Your task to perform on an android device: change timer sound Image 0: 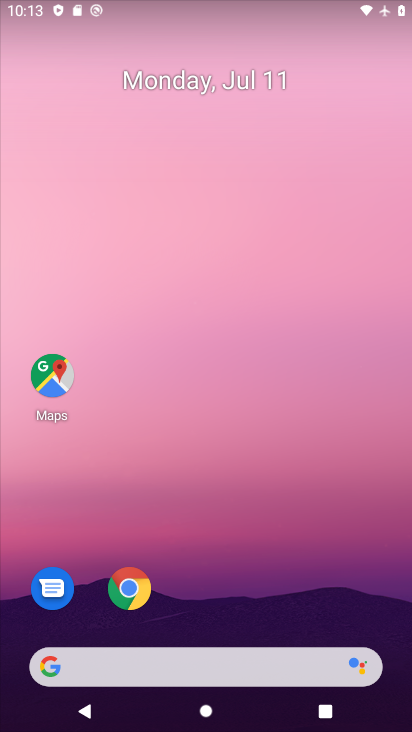
Step 0: drag from (152, 655) to (317, 172)
Your task to perform on an android device: change timer sound Image 1: 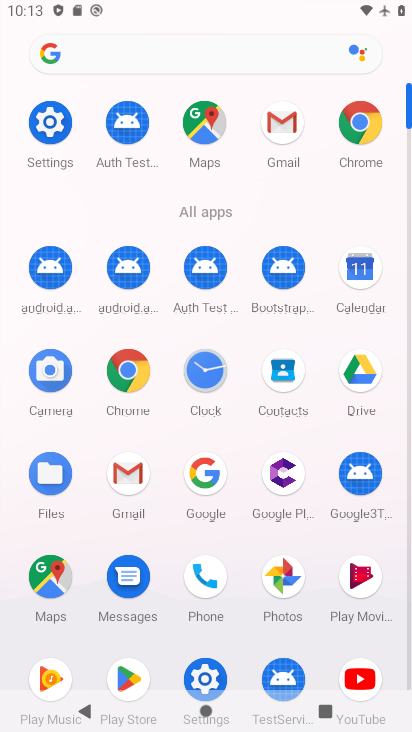
Step 1: click (204, 375)
Your task to perform on an android device: change timer sound Image 2: 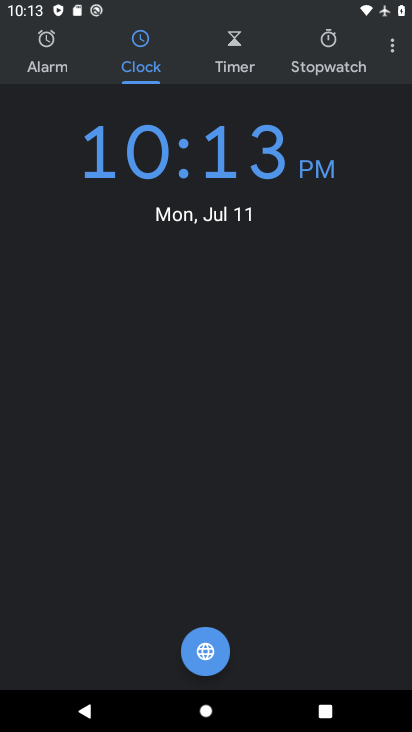
Step 2: click (394, 45)
Your task to perform on an android device: change timer sound Image 3: 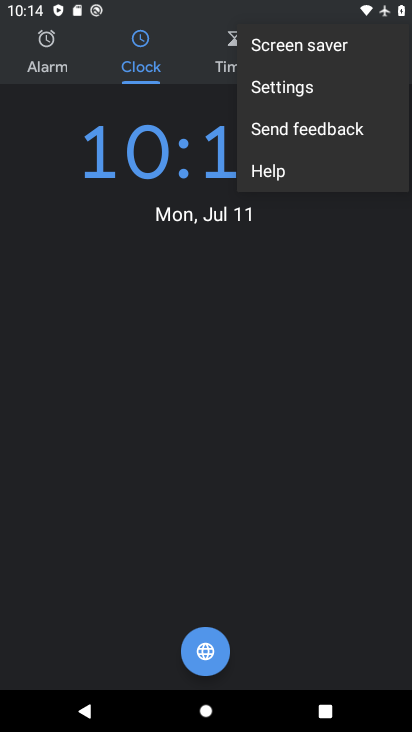
Step 3: click (306, 92)
Your task to perform on an android device: change timer sound Image 4: 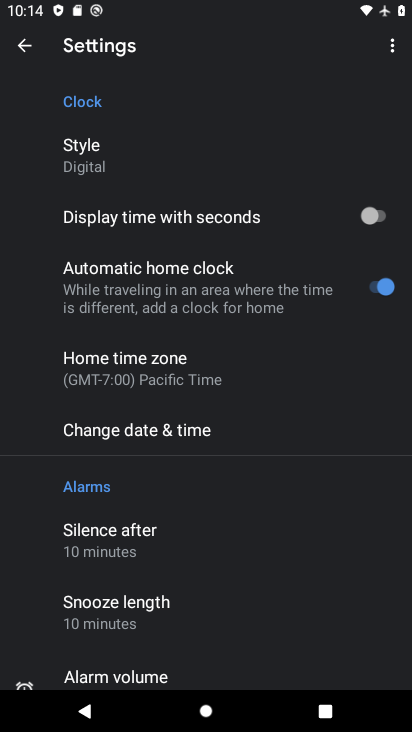
Step 4: drag from (190, 623) to (276, 297)
Your task to perform on an android device: change timer sound Image 5: 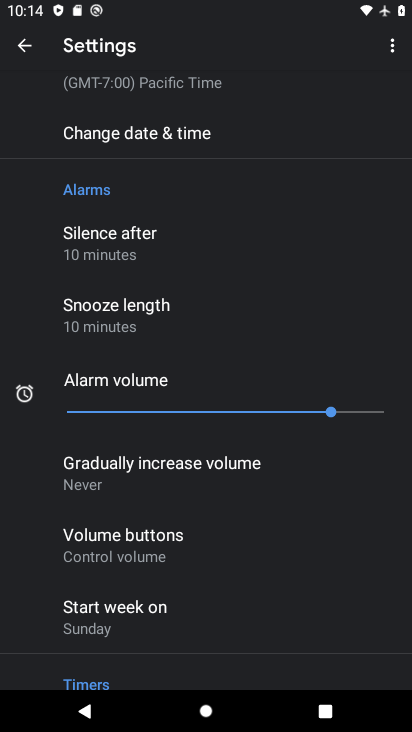
Step 5: drag from (262, 571) to (321, 241)
Your task to perform on an android device: change timer sound Image 6: 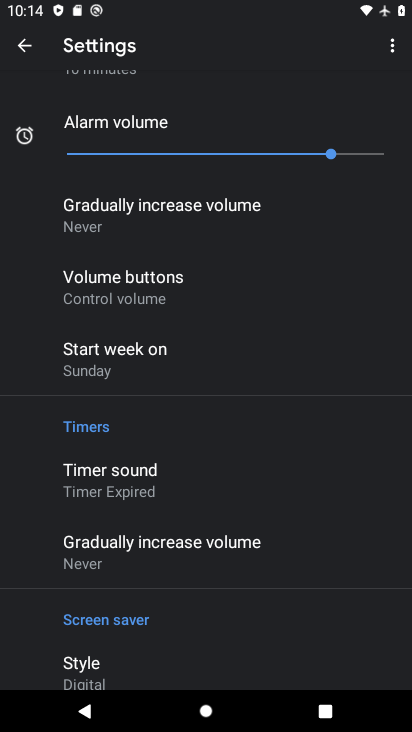
Step 6: click (155, 474)
Your task to perform on an android device: change timer sound Image 7: 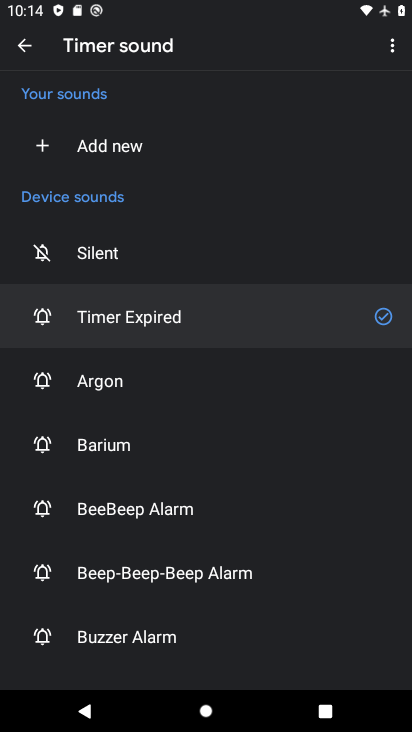
Step 7: click (93, 441)
Your task to perform on an android device: change timer sound Image 8: 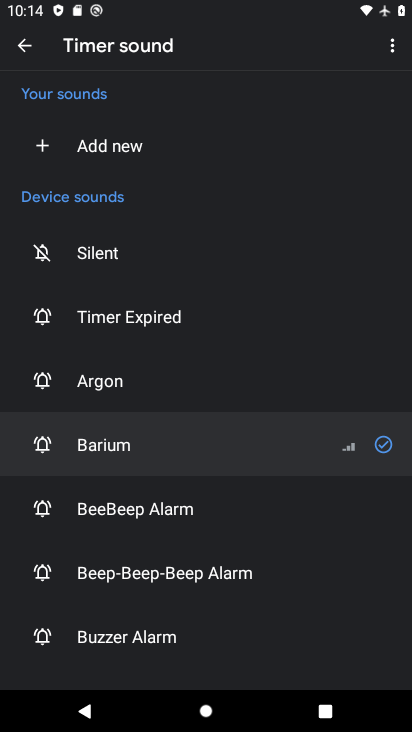
Step 8: task complete